Your task to perform on an android device: turn smart compose on in the gmail app Image 0: 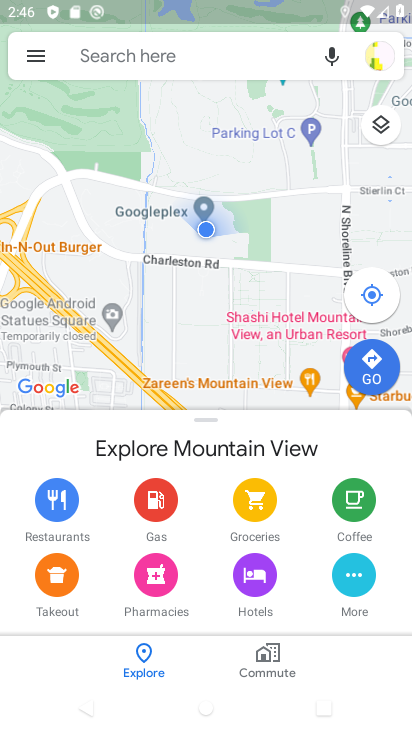
Step 0: press home button
Your task to perform on an android device: turn smart compose on in the gmail app Image 1: 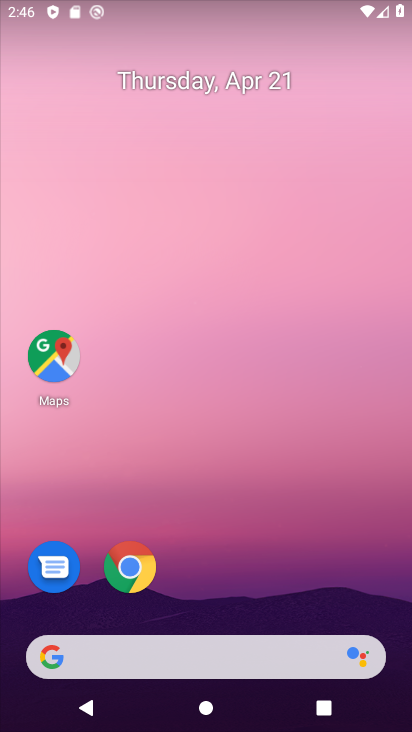
Step 1: drag from (208, 603) to (218, 166)
Your task to perform on an android device: turn smart compose on in the gmail app Image 2: 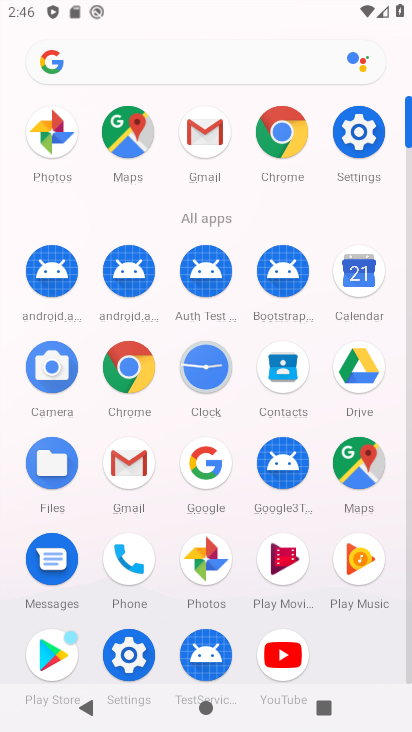
Step 2: click (206, 124)
Your task to perform on an android device: turn smart compose on in the gmail app Image 3: 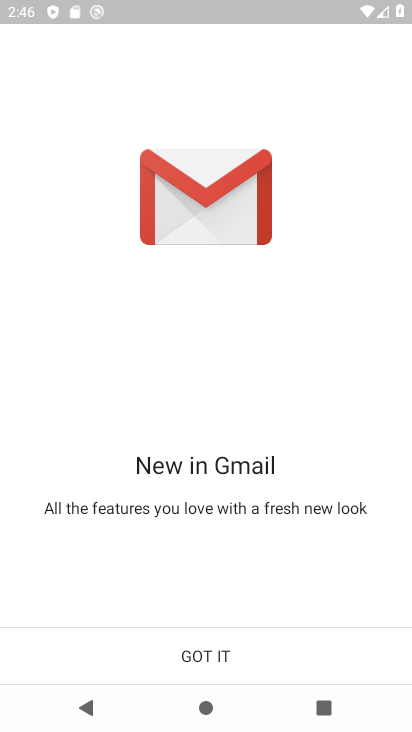
Step 3: click (143, 652)
Your task to perform on an android device: turn smart compose on in the gmail app Image 4: 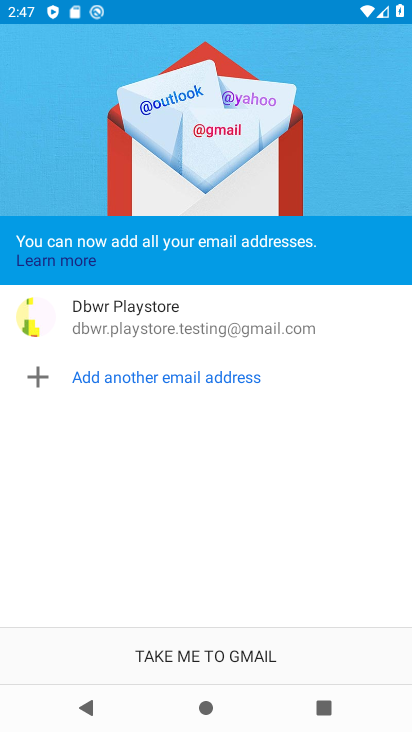
Step 4: click (143, 652)
Your task to perform on an android device: turn smart compose on in the gmail app Image 5: 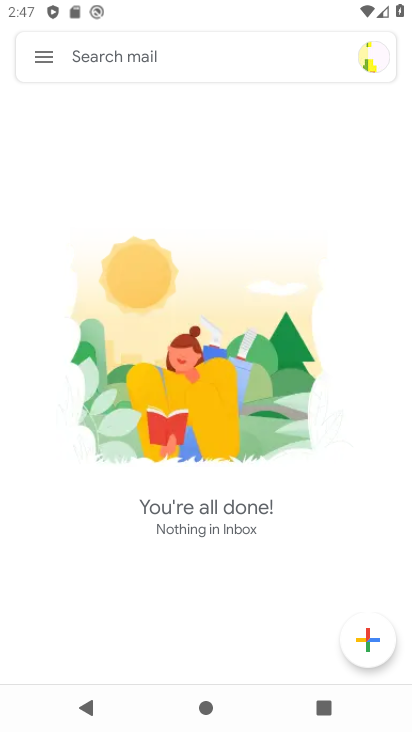
Step 5: click (54, 54)
Your task to perform on an android device: turn smart compose on in the gmail app Image 6: 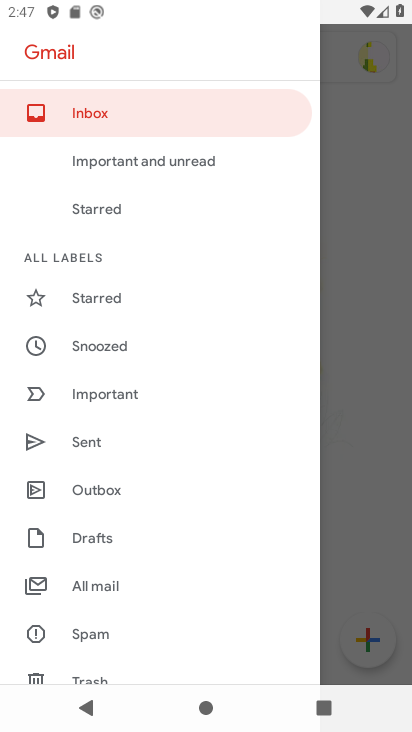
Step 6: drag from (120, 637) to (153, 155)
Your task to perform on an android device: turn smart compose on in the gmail app Image 7: 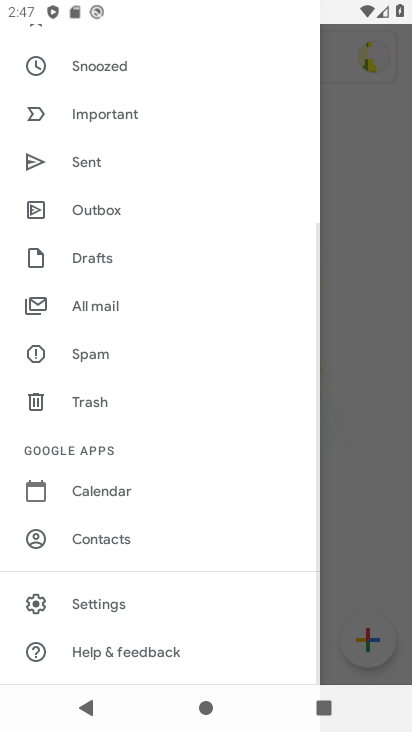
Step 7: click (105, 626)
Your task to perform on an android device: turn smart compose on in the gmail app Image 8: 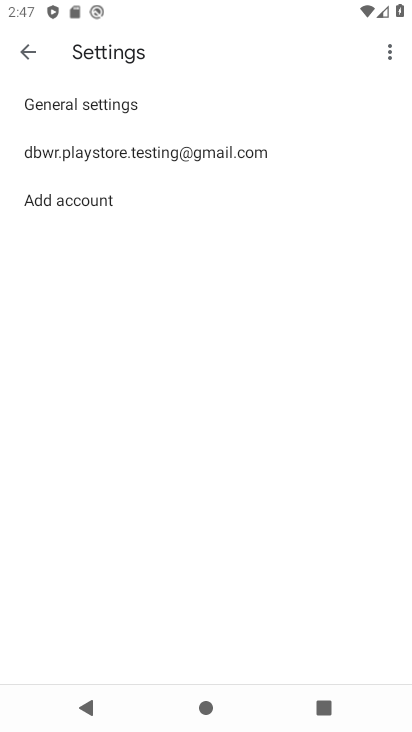
Step 8: click (127, 164)
Your task to perform on an android device: turn smart compose on in the gmail app Image 9: 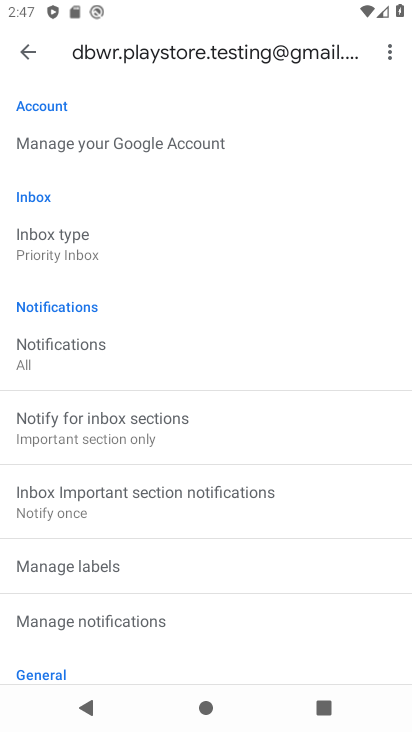
Step 9: task complete